Your task to perform on an android device: toggle location history Image 0: 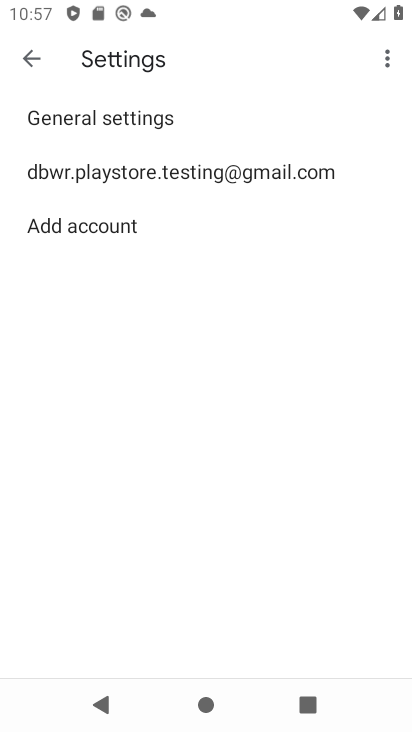
Step 0: press home button
Your task to perform on an android device: toggle location history Image 1: 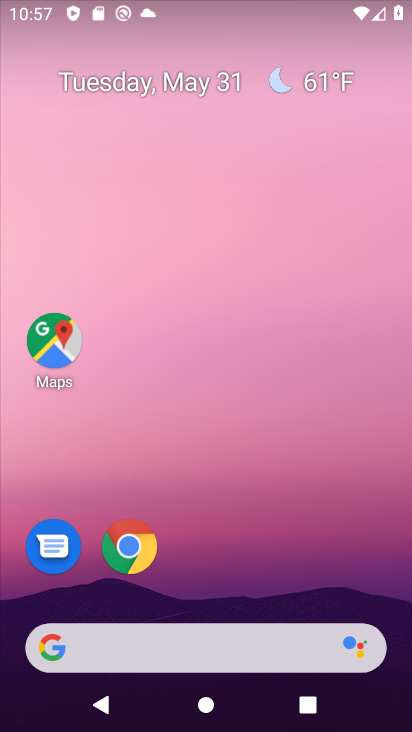
Step 1: drag from (199, 619) to (306, 95)
Your task to perform on an android device: toggle location history Image 2: 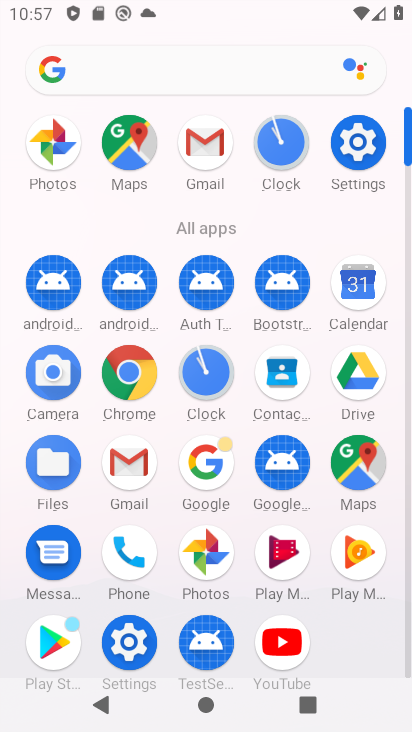
Step 2: click (362, 149)
Your task to perform on an android device: toggle location history Image 3: 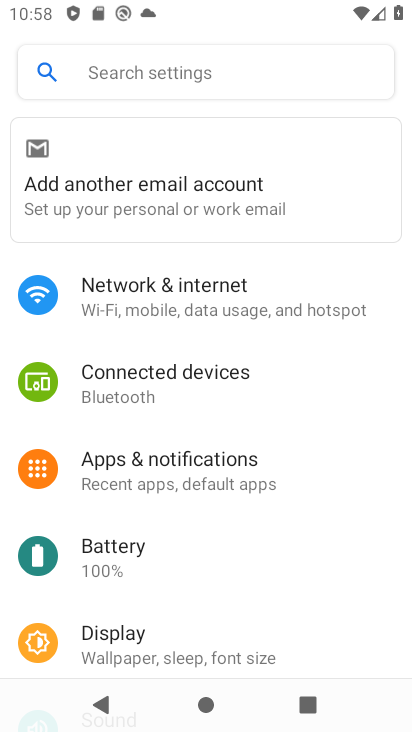
Step 3: drag from (270, 539) to (190, 2)
Your task to perform on an android device: toggle location history Image 4: 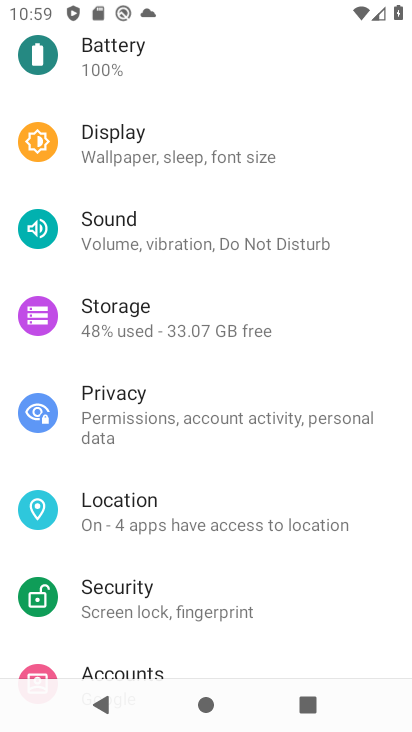
Step 4: click (141, 522)
Your task to perform on an android device: toggle location history Image 5: 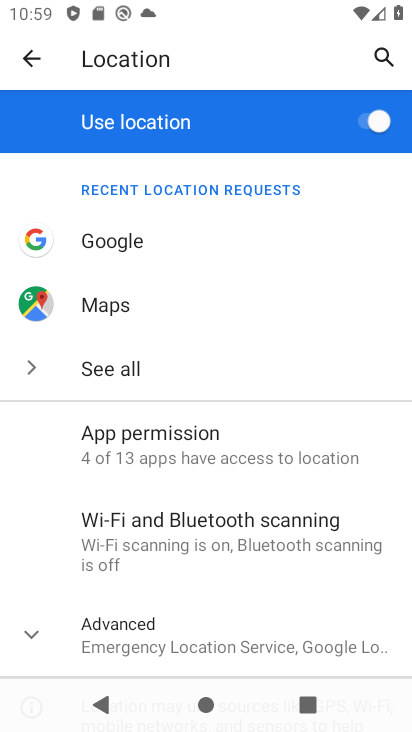
Step 5: click (155, 618)
Your task to perform on an android device: toggle location history Image 6: 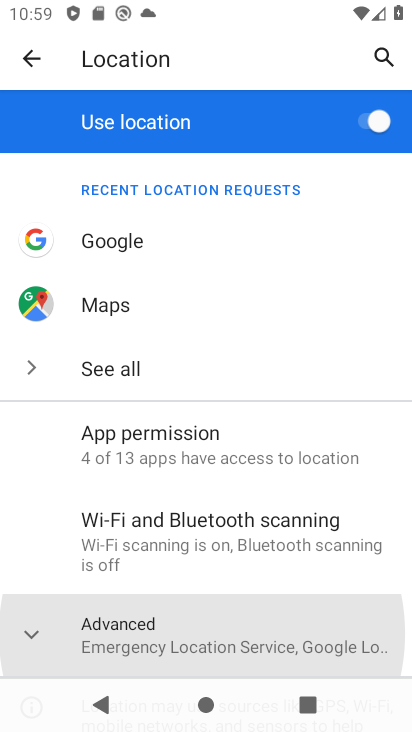
Step 6: drag from (155, 618) to (104, 117)
Your task to perform on an android device: toggle location history Image 7: 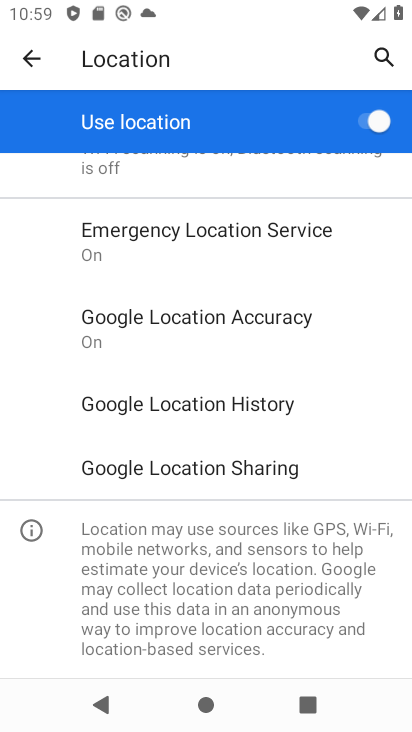
Step 7: click (224, 419)
Your task to perform on an android device: toggle location history Image 8: 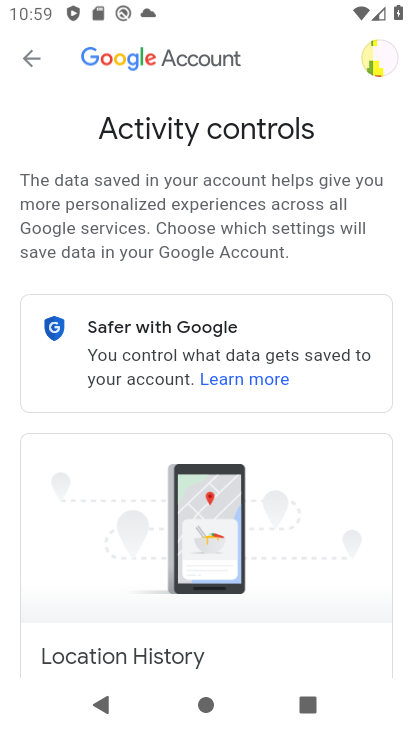
Step 8: drag from (323, 537) to (280, 110)
Your task to perform on an android device: toggle location history Image 9: 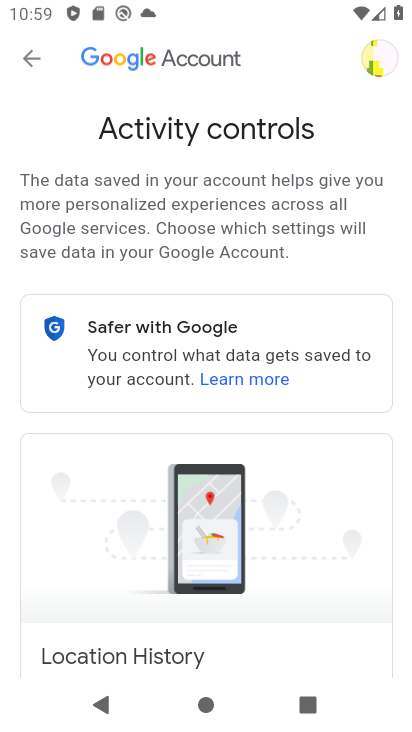
Step 9: drag from (298, 527) to (264, 58)
Your task to perform on an android device: toggle location history Image 10: 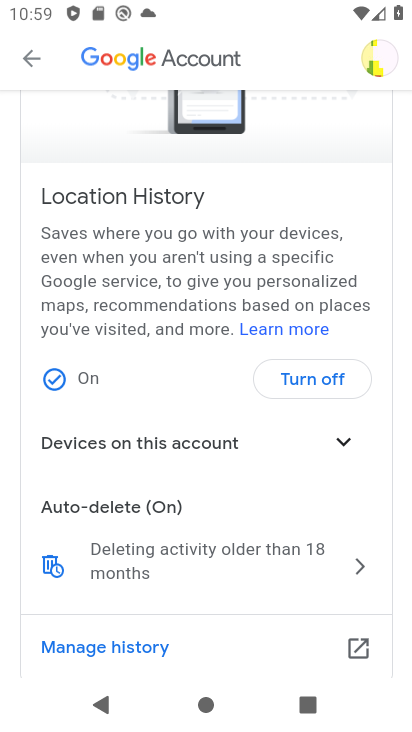
Step 10: click (308, 377)
Your task to perform on an android device: toggle location history Image 11: 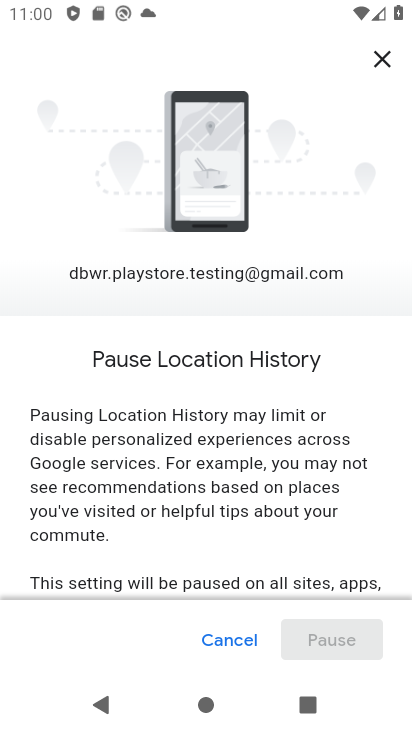
Step 11: drag from (331, 582) to (334, 1)
Your task to perform on an android device: toggle location history Image 12: 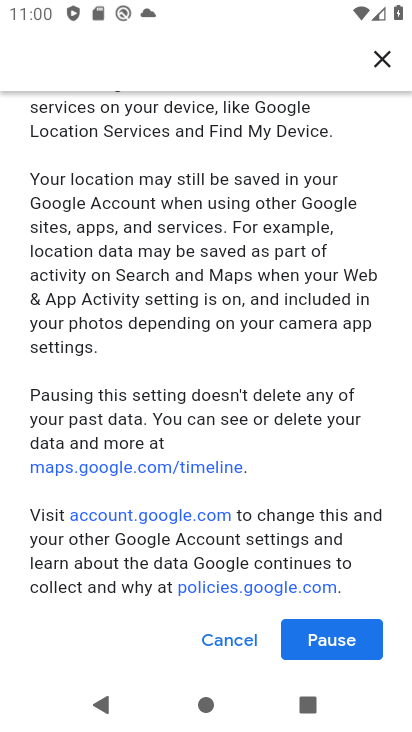
Step 12: click (348, 633)
Your task to perform on an android device: toggle location history Image 13: 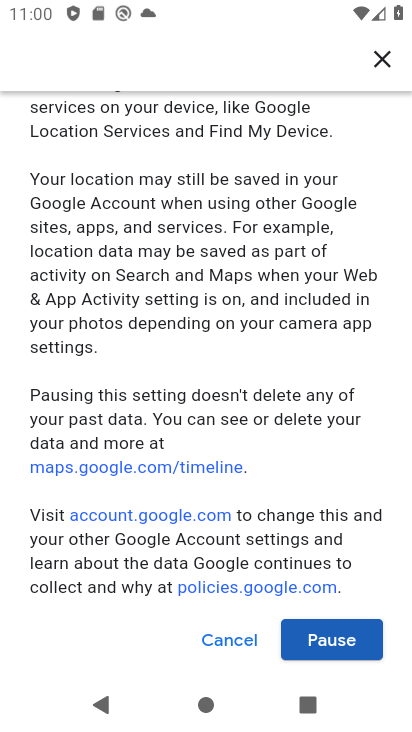
Step 13: click (372, 645)
Your task to perform on an android device: toggle location history Image 14: 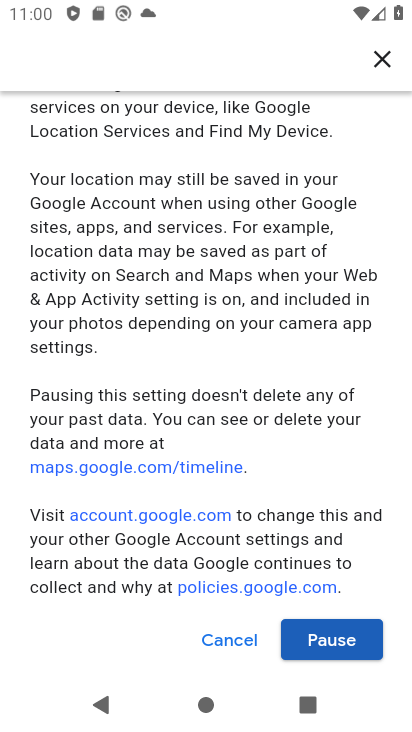
Step 14: click (295, 639)
Your task to perform on an android device: toggle location history Image 15: 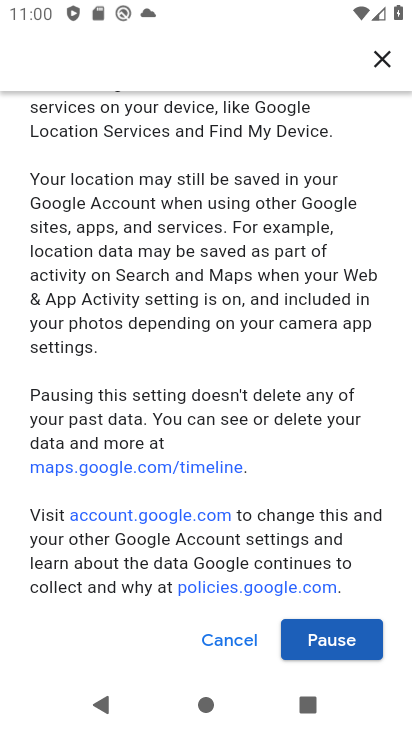
Step 15: click (328, 645)
Your task to perform on an android device: toggle location history Image 16: 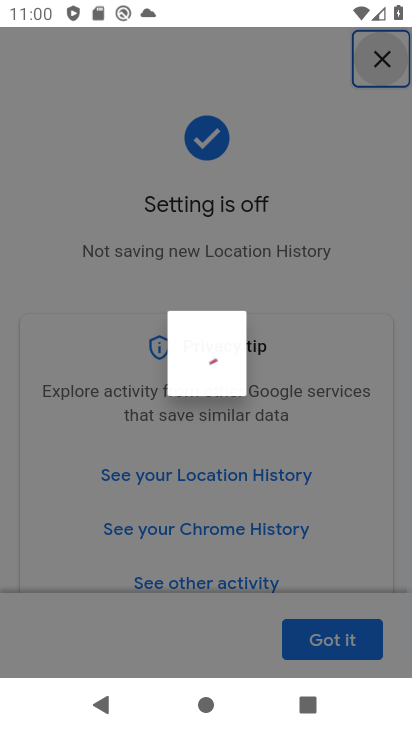
Step 16: click (328, 645)
Your task to perform on an android device: toggle location history Image 17: 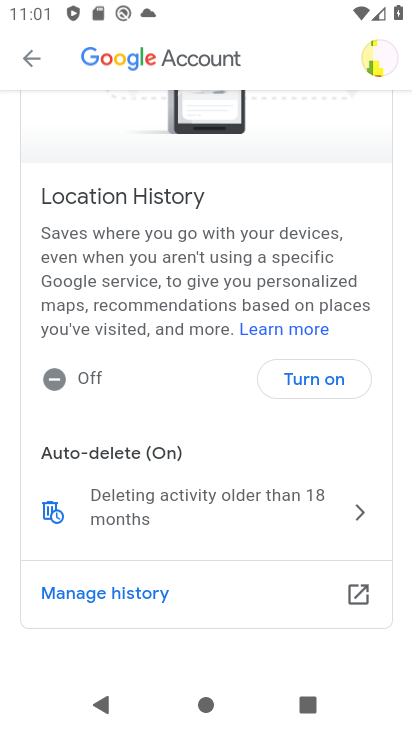
Step 17: task complete